Your task to perform on an android device: Add asus zenbook to the cart on target, then select checkout. Image 0: 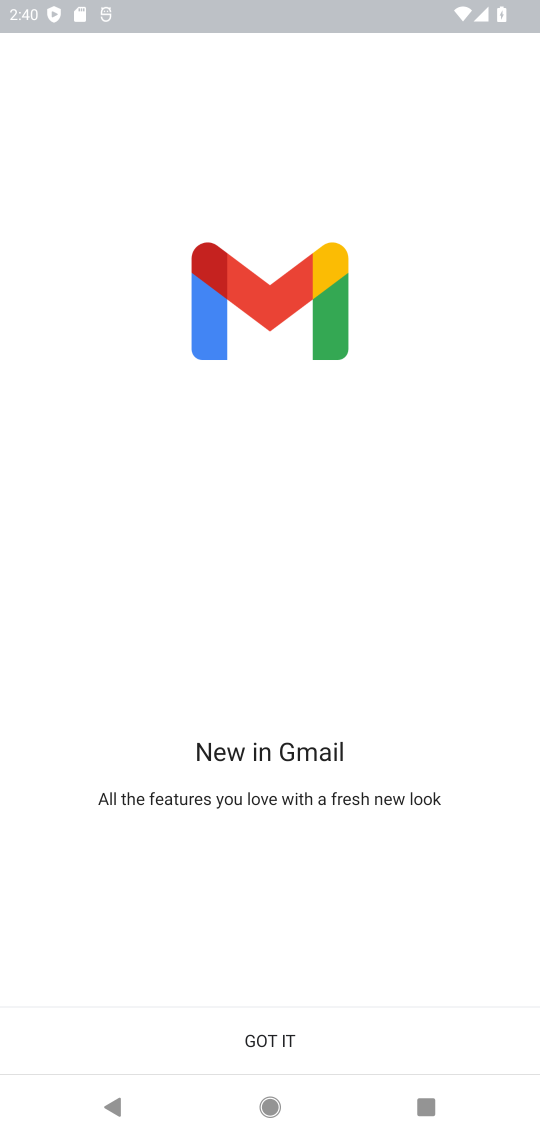
Step 0: press home button
Your task to perform on an android device: Add asus zenbook to the cart on target, then select checkout. Image 1: 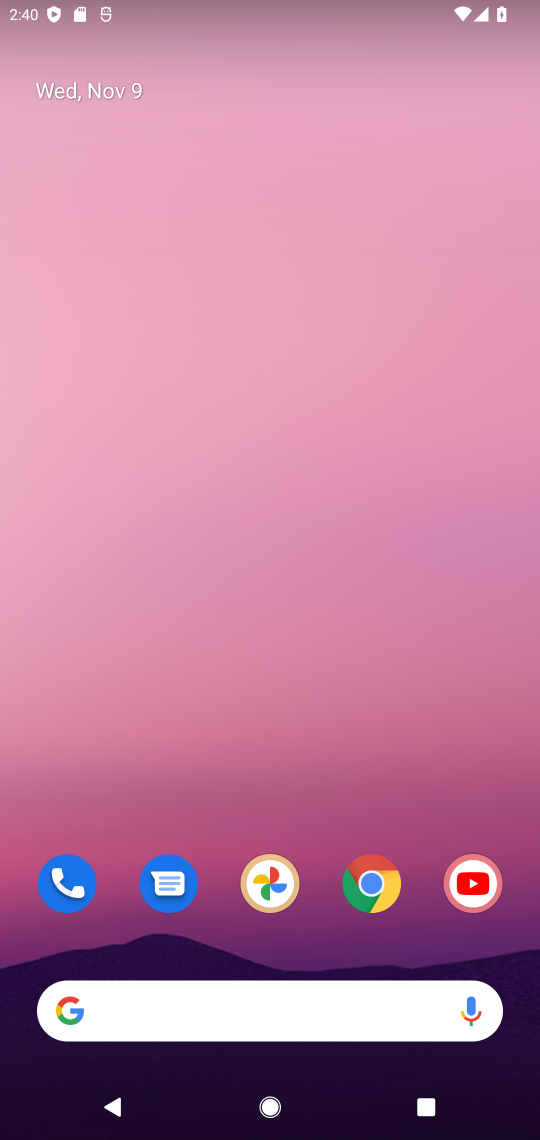
Step 1: click (383, 897)
Your task to perform on an android device: Add asus zenbook to the cart on target, then select checkout. Image 2: 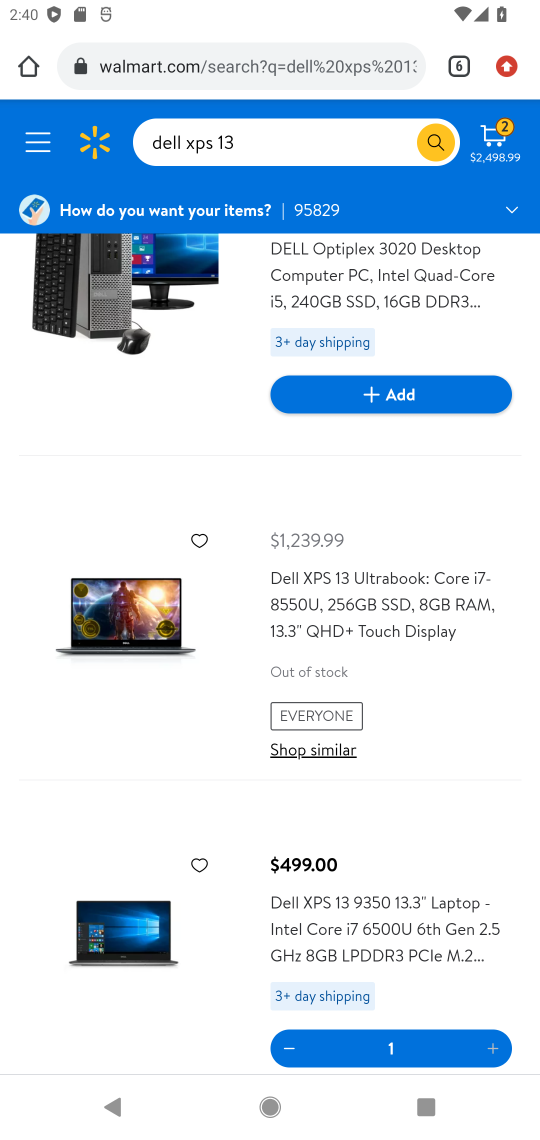
Step 2: click (456, 63)
Your task to perform on an android device: Add asus zenbook to the cart on target, then select checkout. Image 3: 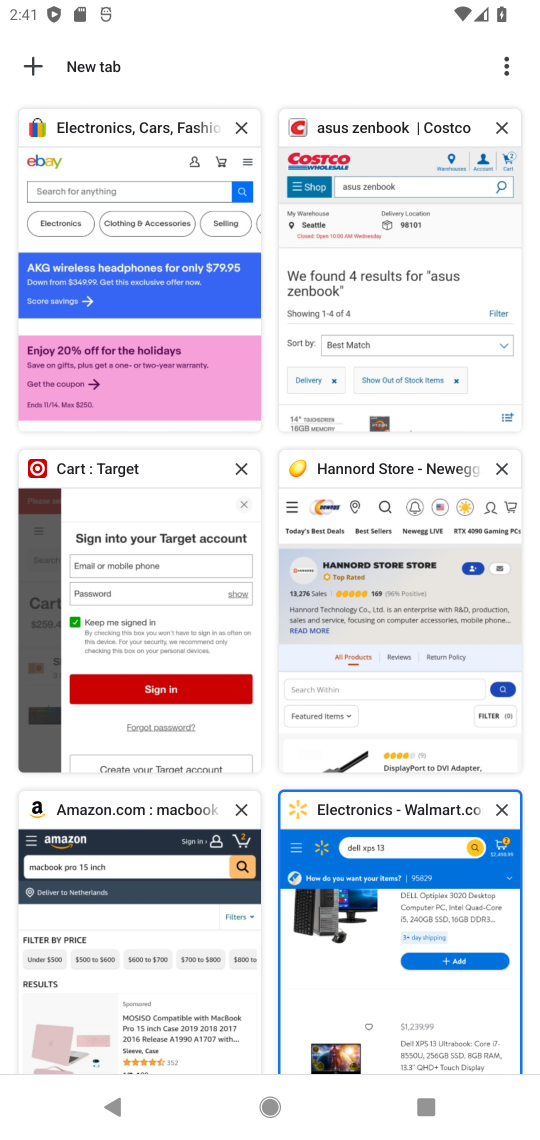
Step 3: click (170, 610)
Your task to perform on an android device: Add asus zenbook to the cart on target, then select checkout. Image 4: 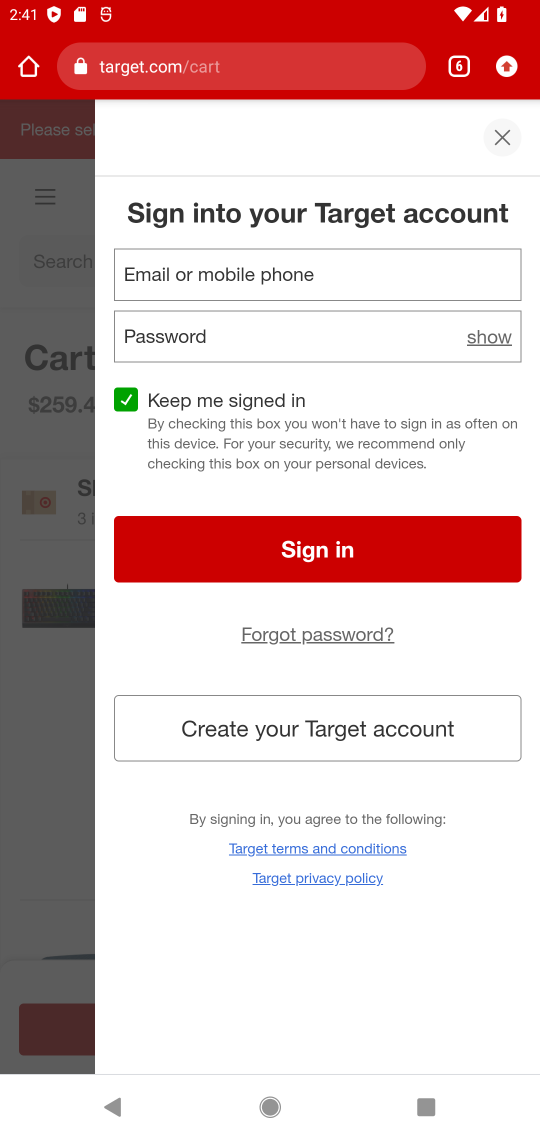
Step 4: click (511, 141)
Your task to perform on an android device: Add asus zenbook to the cart on target, then select checkout. Image 5: 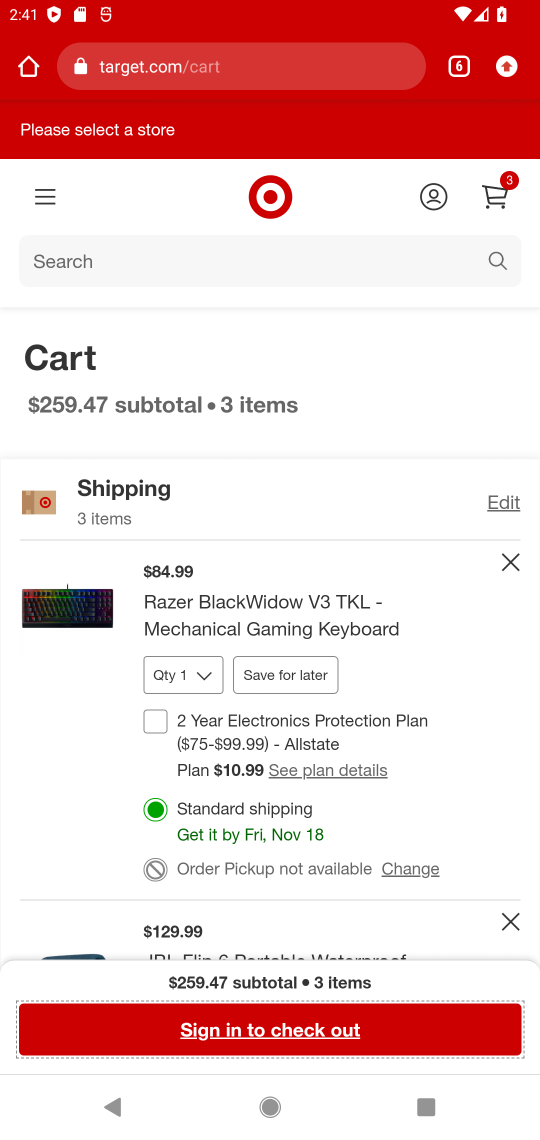
Step 5: click (89, 257)
Your task to perform on an android device: Add asus zenbook to the cart on target, then select checkout. Image 6: 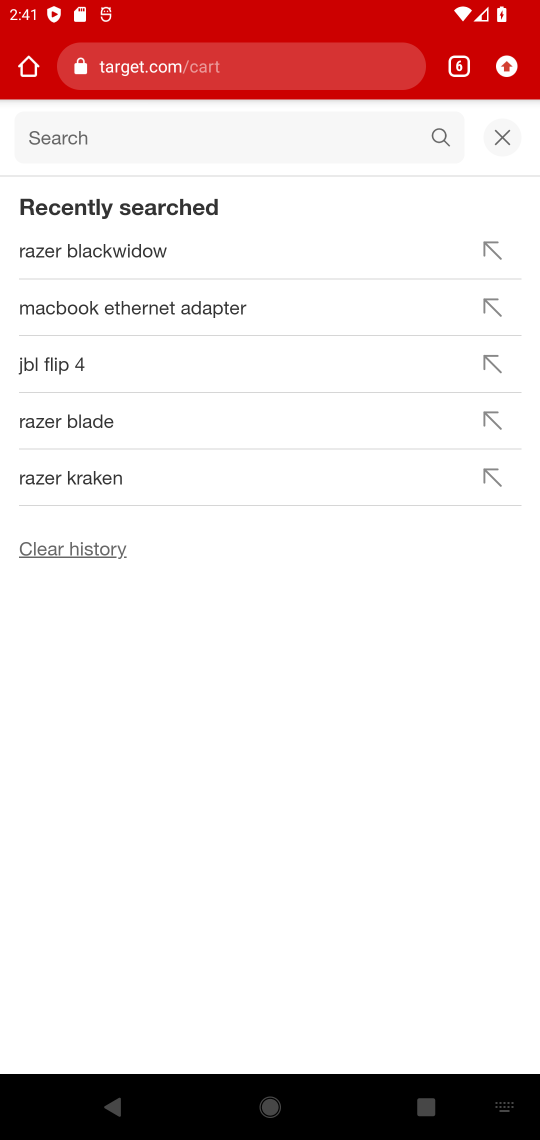
Step 6: type "asus zenbook "
Your task to perform on an android device: Add asus zenbook to the cart on target, then select checkout. Image 7: 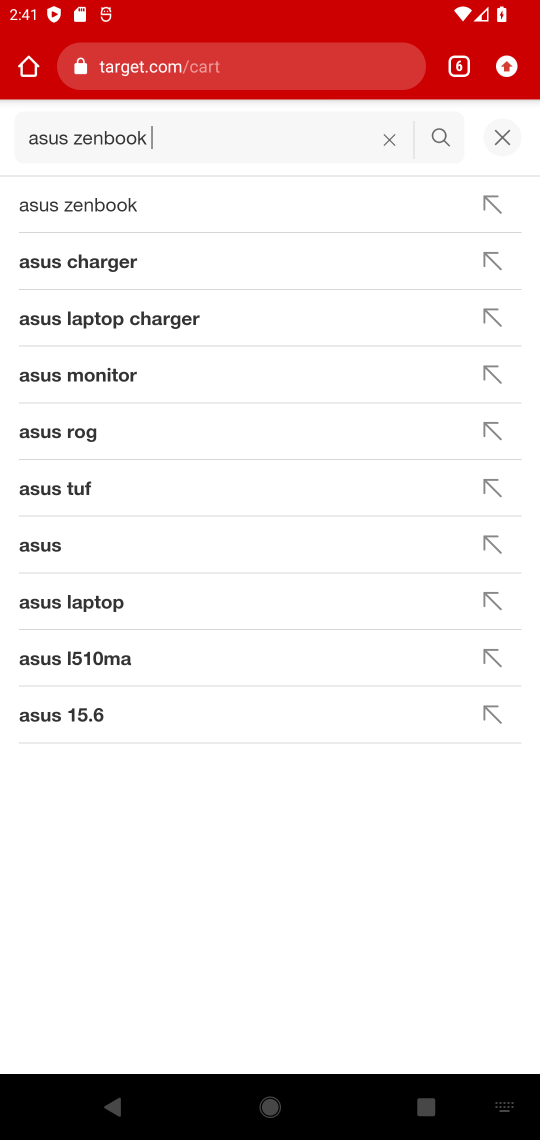
Step 7: click (107, 201)
Your task to perform on an android device: Add asus zenbook to the cart on target, then select checkout. Image 8: 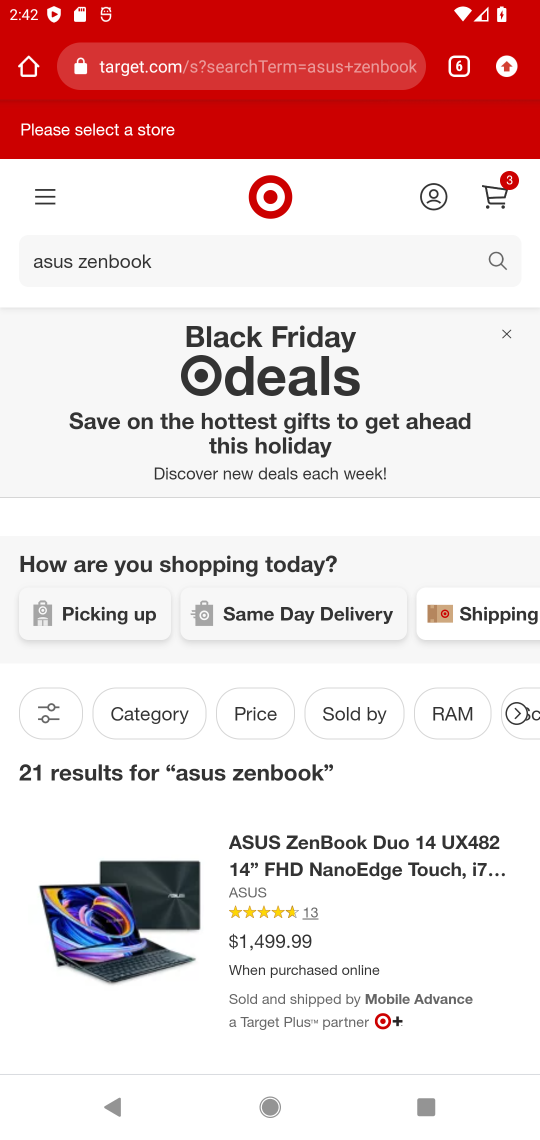
Step 8: click (135, 643)
Your task to perform on an android device: Add asus zenbook to the cart on target, then select checkout. Image 9: 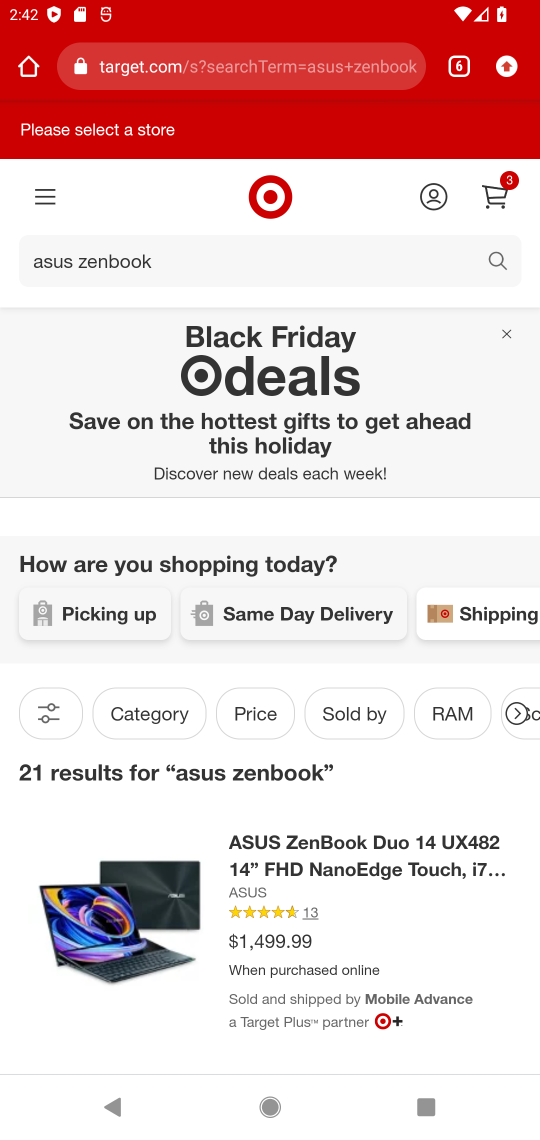
Step 9: drag from (215, 911) to (362, 548)
Your task to perform on an android device: Add asus zenbook to the cart on target, then select checkout. Image 10: 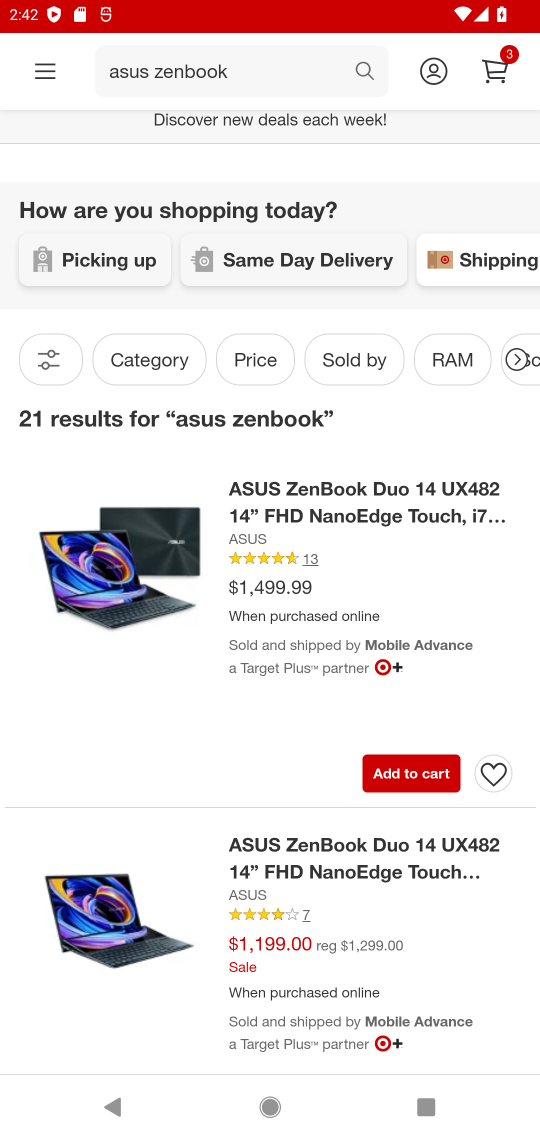
Step 10: click (432, 769)
Your task to perform on an android device: Add asus zenbook to the cart on target, then select checkout. Image 11: 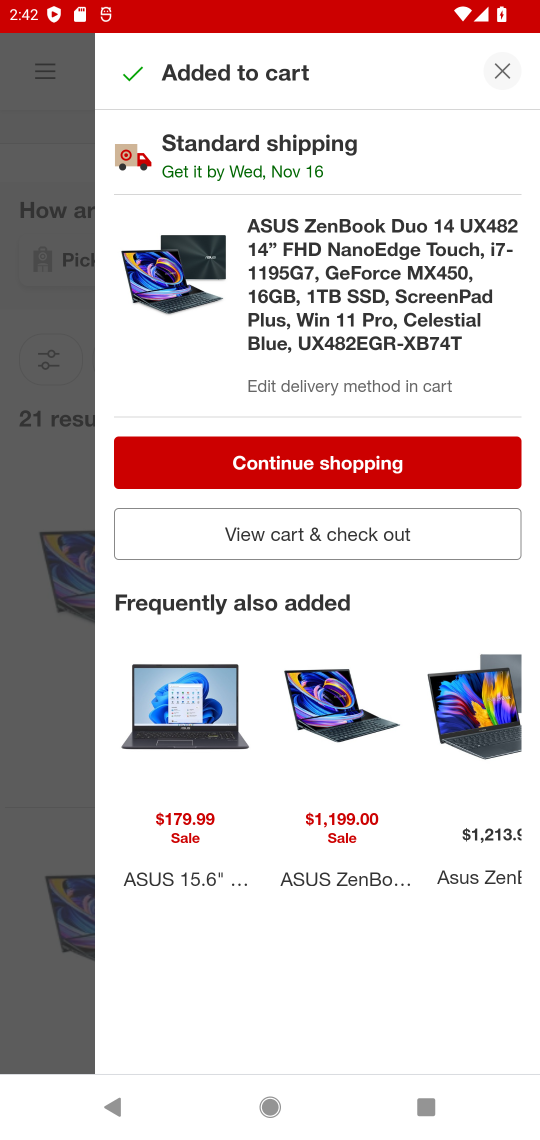
Step 11: click (302, 534)
Your task to perform on an android device: Add asus zenbook to the cart on target, then select checkout. Image 12: 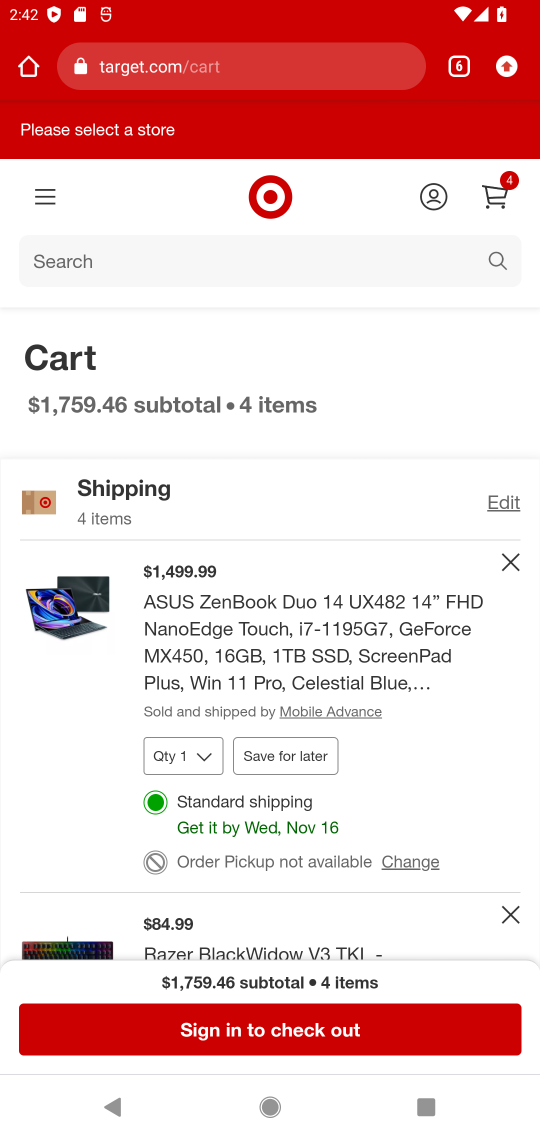
Step 12: click (299, 1024)
Your task to perform on an android device: Add asus zenbook to the cart on target, then select checkout. Image 13: 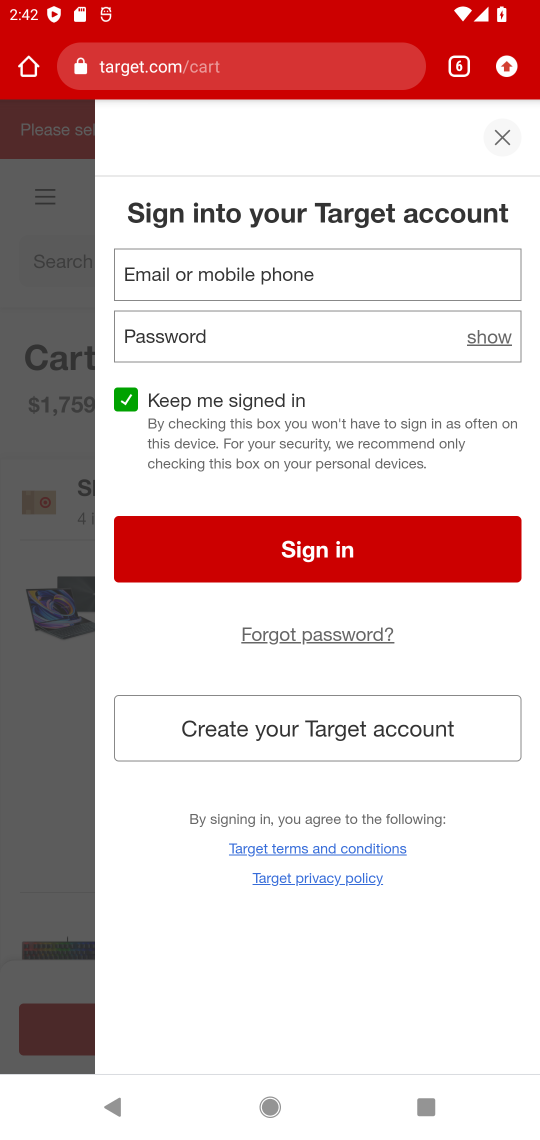
Step 13: task complete